Your task to perform on an android device: delete the emails in spam in the gmail app Image 0: 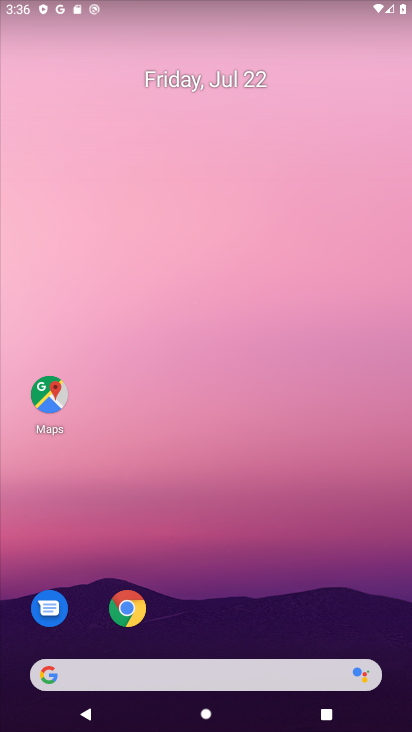
Step 0: task complete